Your task to perform on an android device: Go to Amazon Image 0: 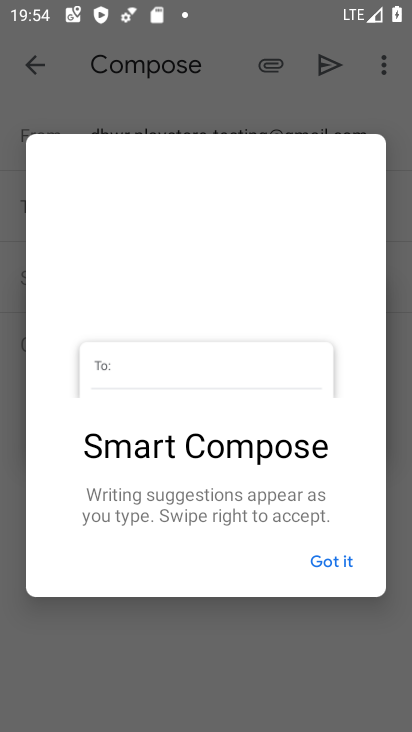
Step 0: press home button
Your task to perform on an android device: Go to Amazon Image 1: 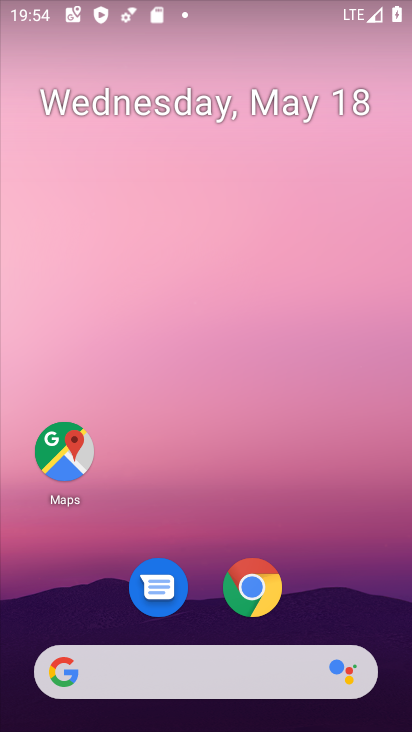
Step 1: click (260, 581)
Your task to perform on an android device: Go to Amazon Image 2: 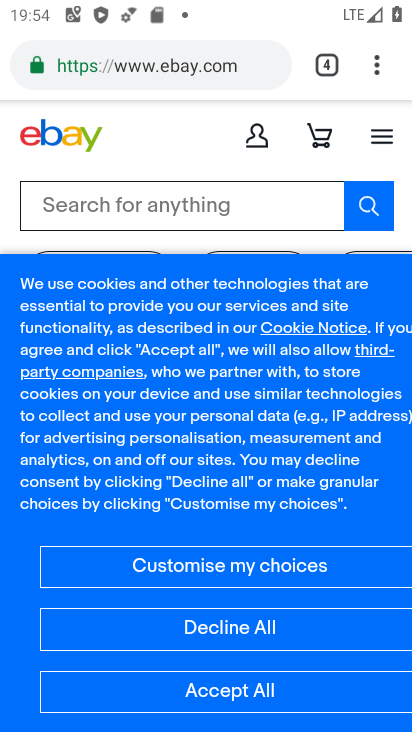
Step 2: click (330, 59)
Your task to perform on an android device: Go to Amazon Image 3: 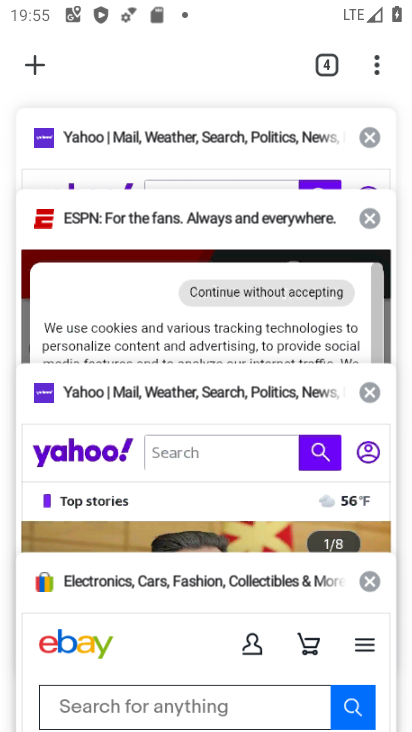
Step 3: click (40, 63)
Your task to perform on an android device: Go to Amazon Image 4: 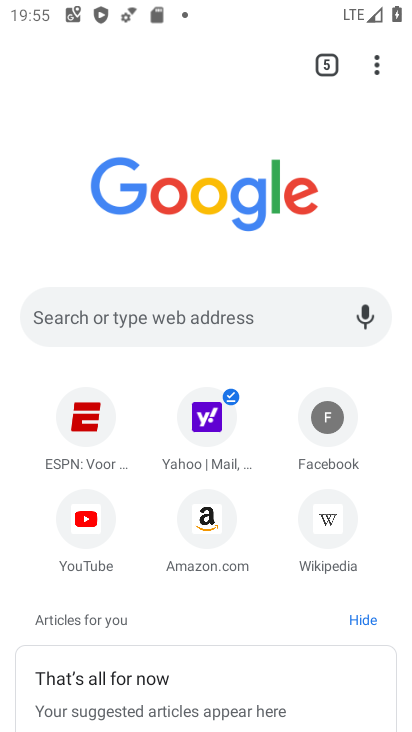
Step 4: click (209, 521)
Your task to perform on an android device: Go to Amazon Image 5: 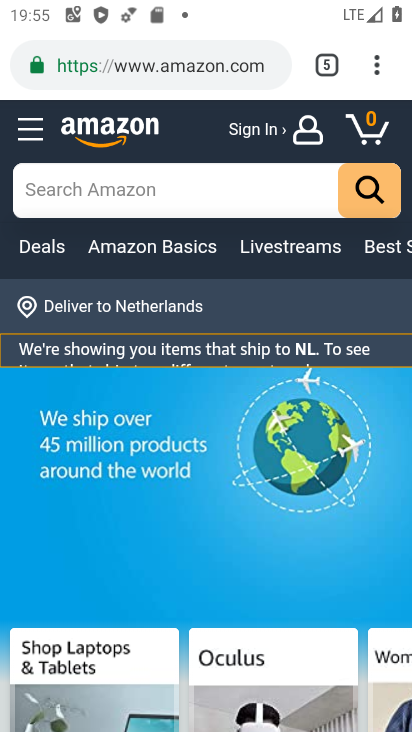
Step 5: task complete